Your task to perform on an android device: change keyboard looks Image 0: 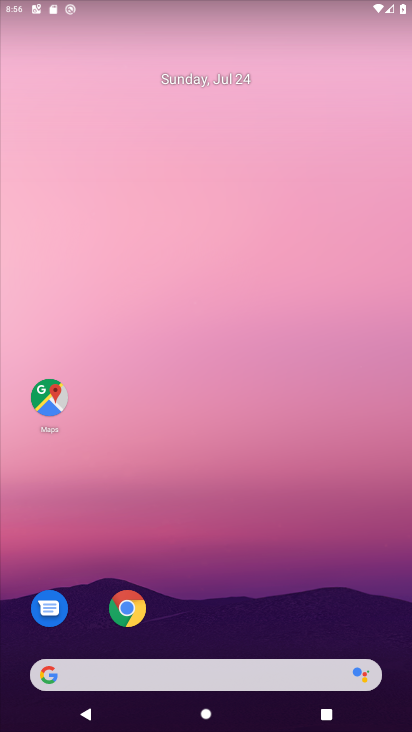
Step 0: drag from (262, 606) to (323, 11)
Your task to perform on an android device: change keyboard looks Image 1: 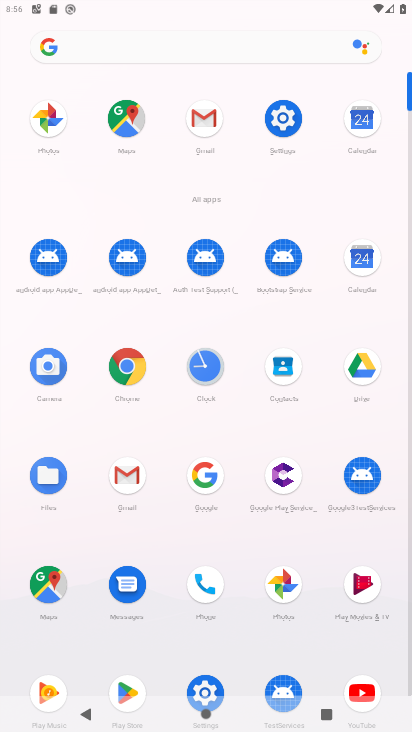
Step 1: click (271, 120)
Your task to perform on an android device: change keyboard looks Image 2: 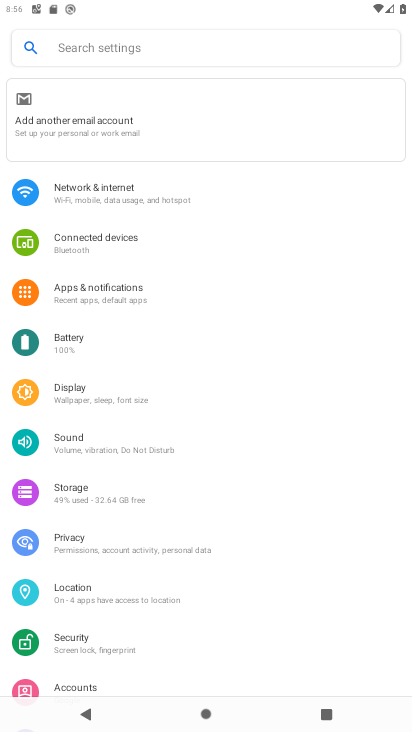
Step 2: drag from (202, 571) to (200, 88)
Your task to perform on an android device: change keyboard looks Image 3: 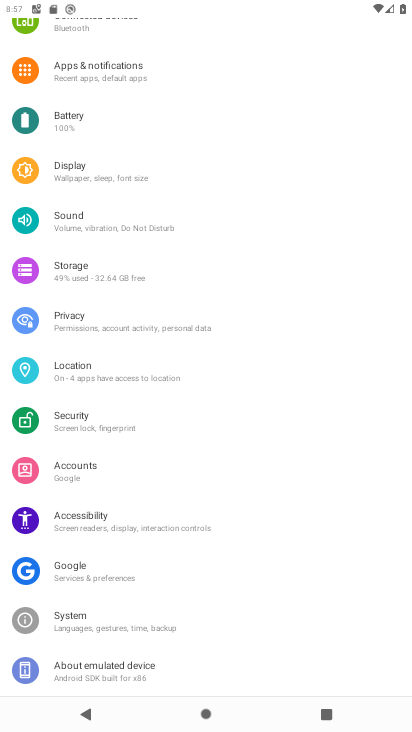
Step 3: click (163, 628)
Your task to perform on an android device: change keyboard looks Image 4: 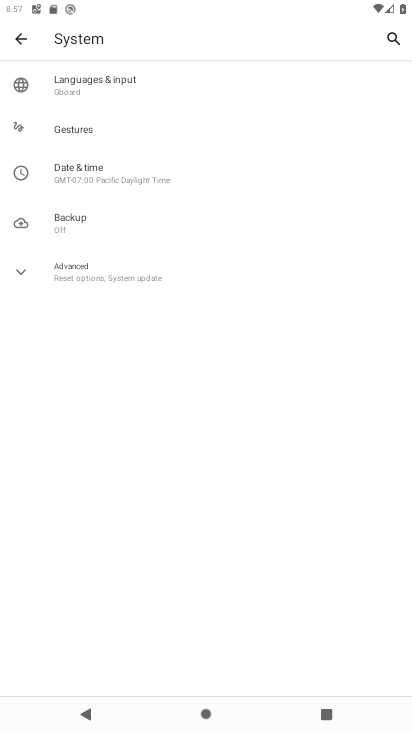
Step 4: click (57, 78)
Your task to perform on an android device: change keyboard looks Image 5: 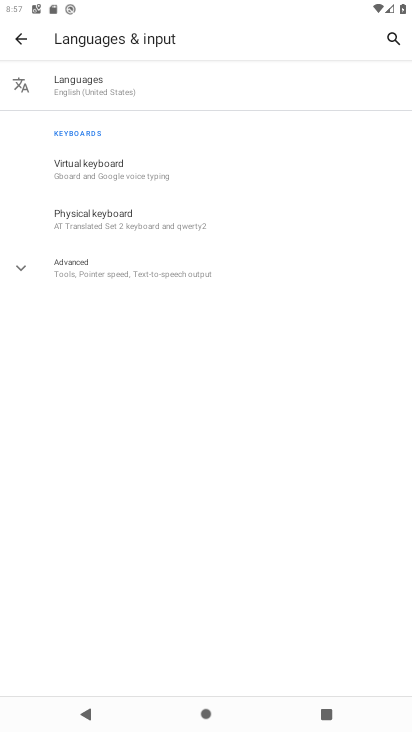
Step 5: click (85, 165)
Your task to perform on an android device: change keyboard looks Image 6: 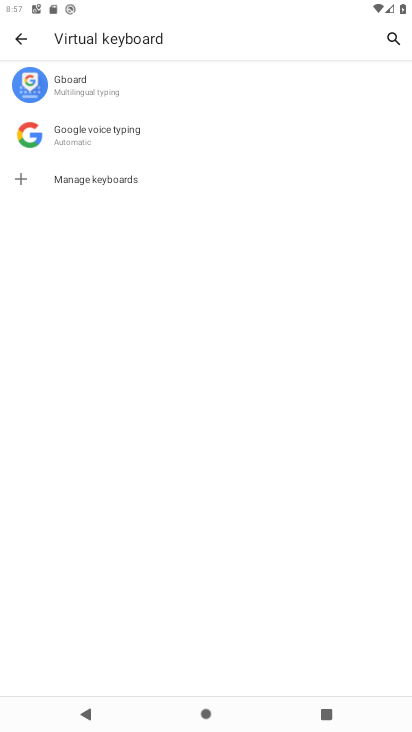
Step 6: click (154, 75)
Your task to perform on an android device: change keyboard looks Image 7: 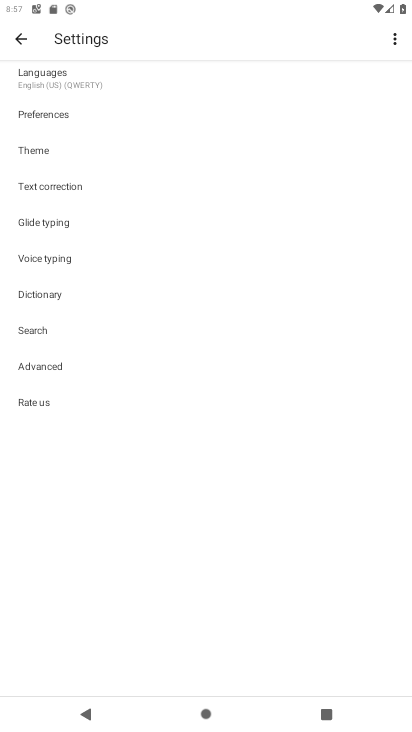
Step 7: click (73, 148)
Your task to perform on an android device: change keyboard looks Image 8: 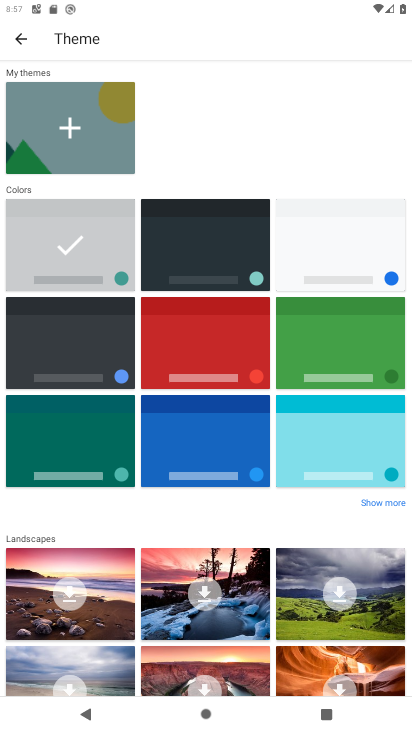
Step 8: click (209, 382)
Your task to perform on an android device: change keyboard looks Image 9: 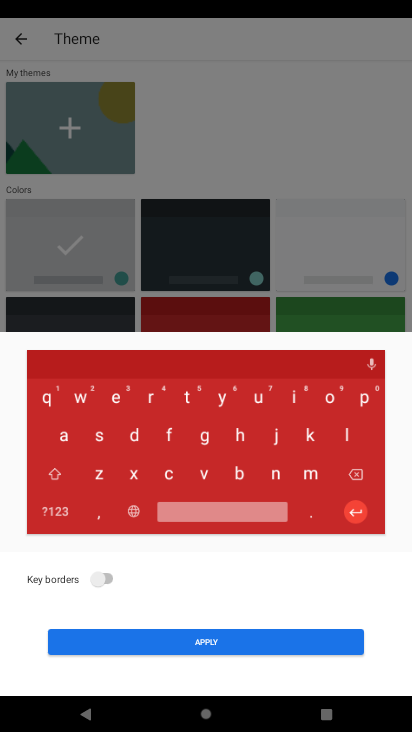
Step 9: click (253, 630)
Your task to perform on an android device: change keyboard looks Image 10: 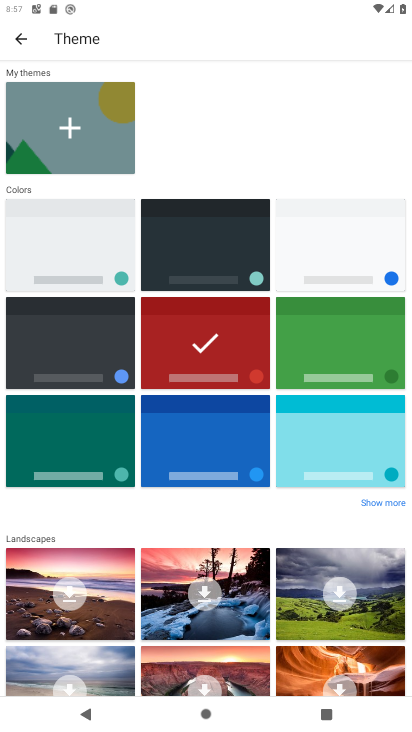
Step 10: task complete